Your task to perform on an android device: turn on translation in the chrome app Image 0: 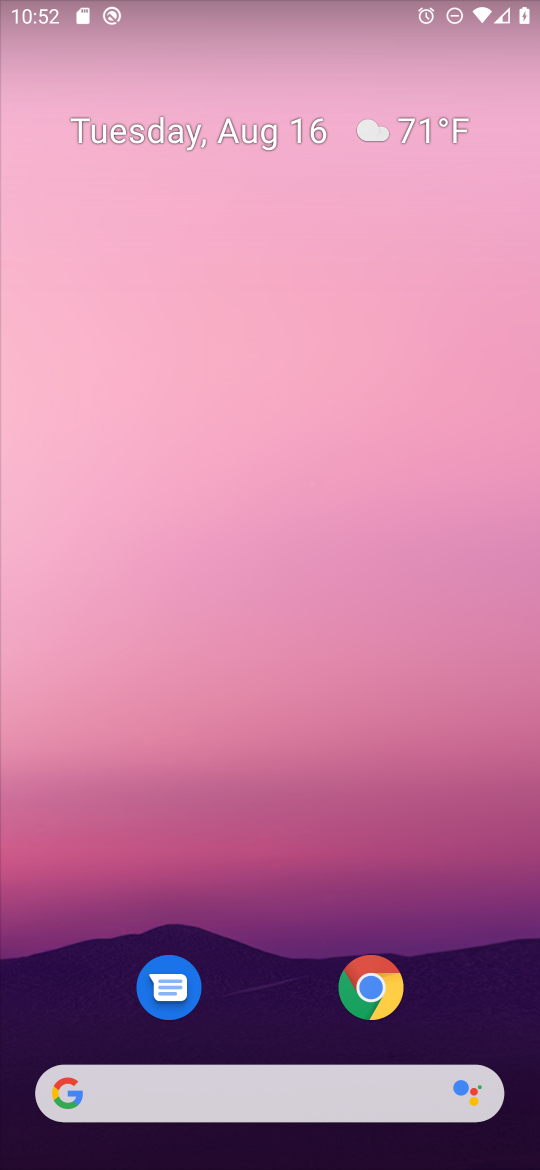
Step 0: click (355, 996)
Your task to perform on an android device: turn on translation in the chrome app Image 1: 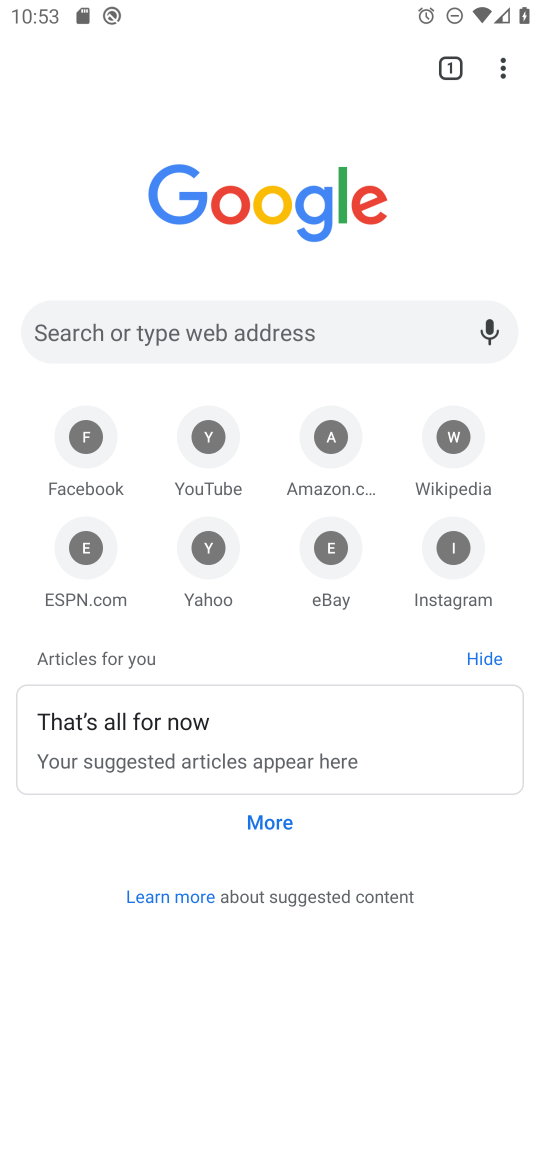
Step 1: click (506, 63)
Your task to perform on an android device: turn on translation in the chrome app Image 2: 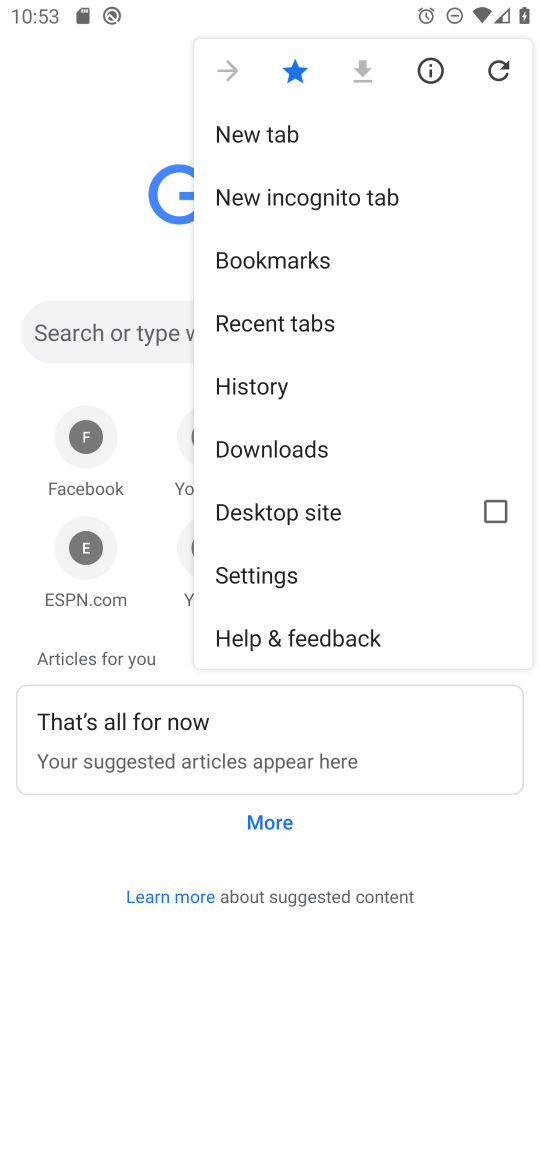
Step 2: click (253, 565)
Your task to perform on an android device: turn on translation in the chrome app Image 3: 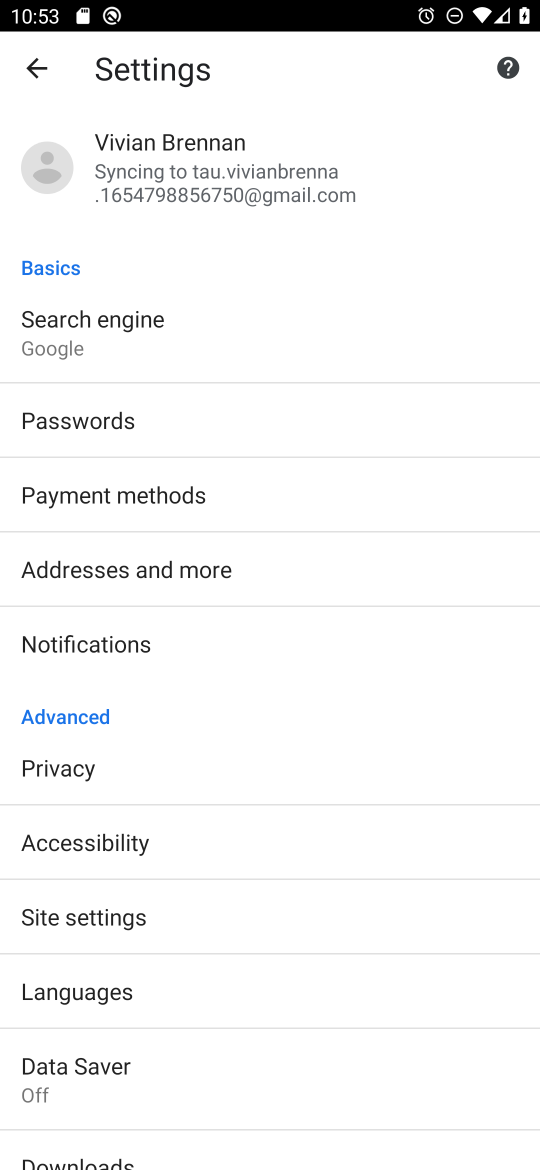
Step 3: drag from (265, 1099) to (235, 373)
Your task to perform on an android device: turn on translation in the chrome app Image 4: 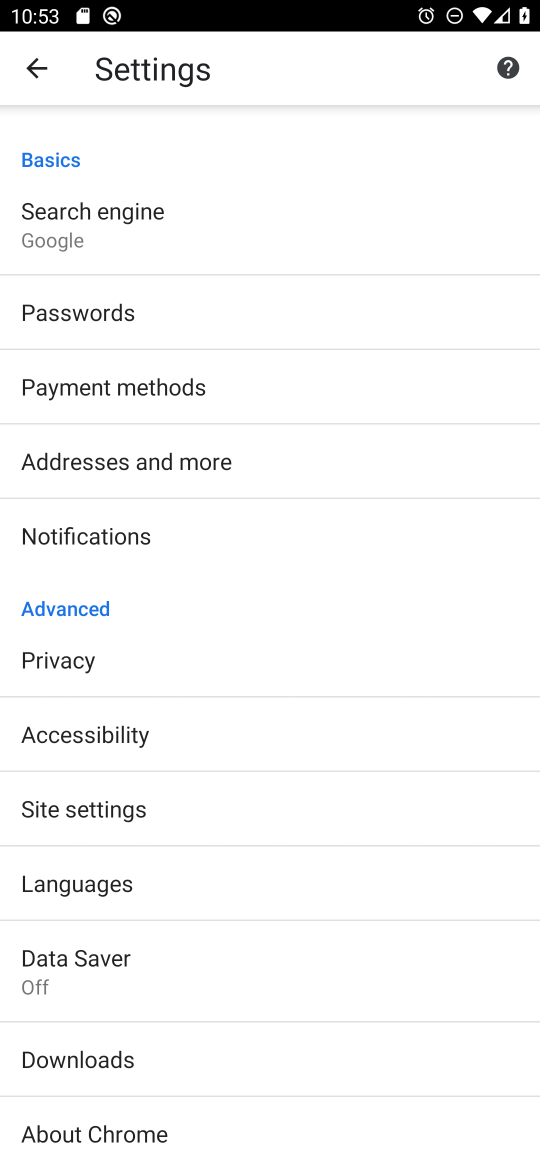
Step 4: drag from (250, 993) to (156, 49)
Your task to perform on an android device: turn on translation in the chrome app Image 5: 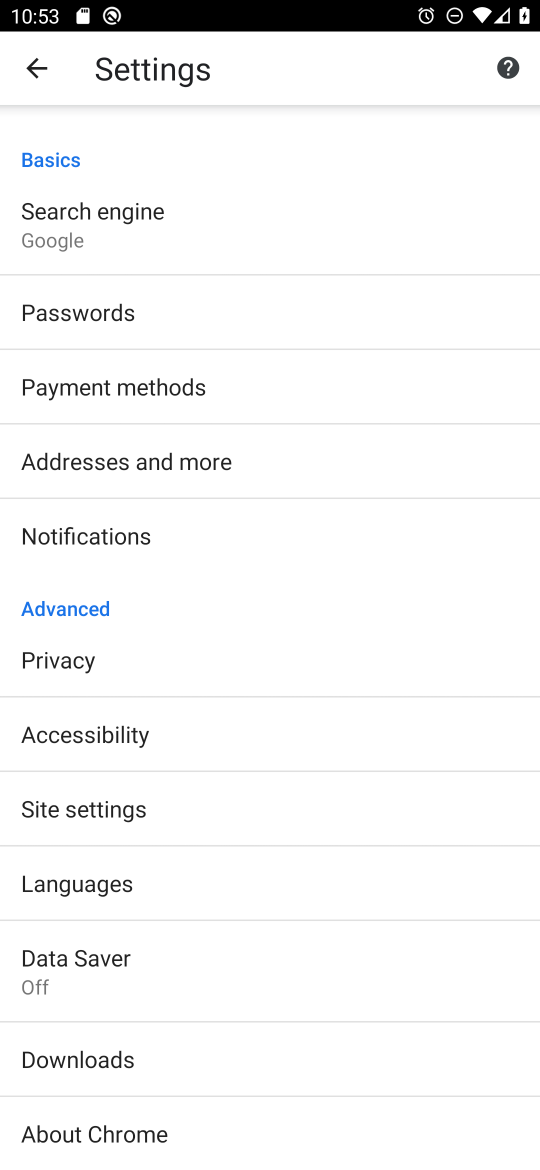
Step 5: click (113, 888)
Your task to perform on an android device: turn on translation in the chrome app Image 6: 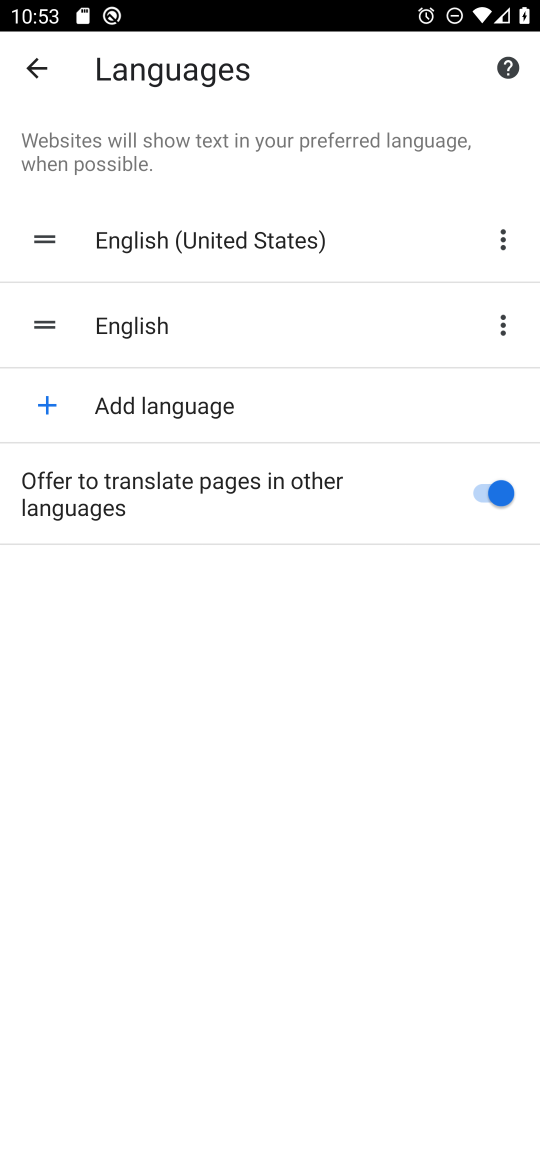
Step 6: task complete